Your task to perform on an android device: Is it going to rain today? Image 0: 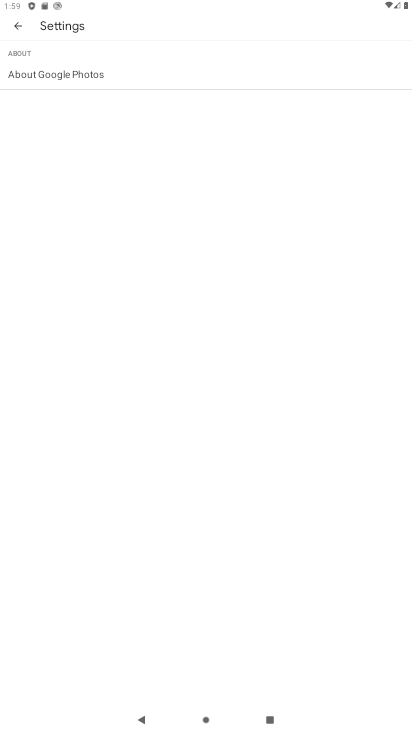
Step 0: press home button
Your task to perform on an android device: Is it going to rain today? Image 1: 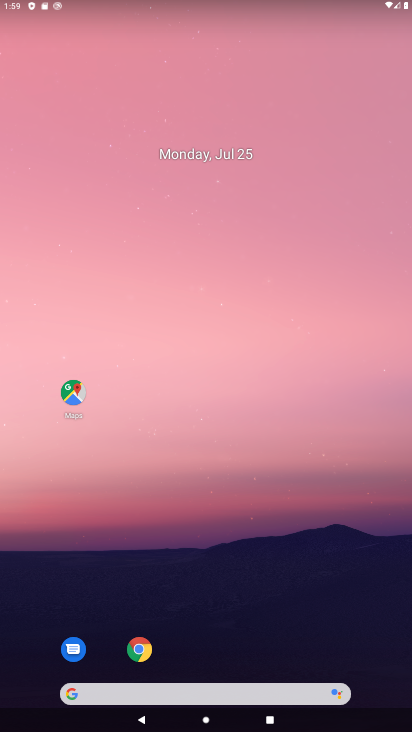
Step 1: drag from (6, 281) to (395, 290)
Your task to perform on an android device: Is it going to rain today? Image 2: 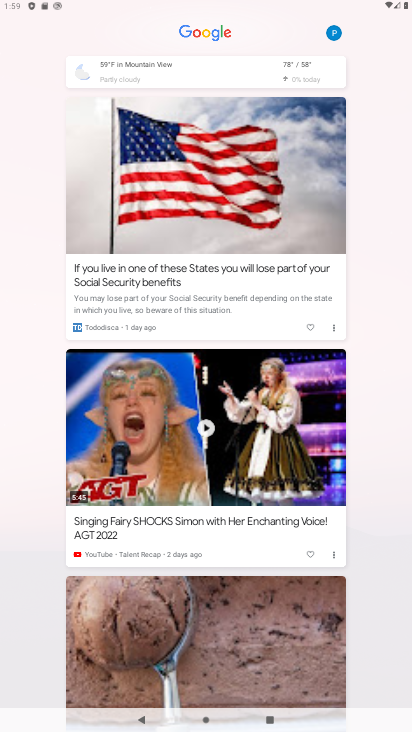
Step 2: click (293, 66)
Your task to perform on an android device: Is it going to rain today? Image 3: 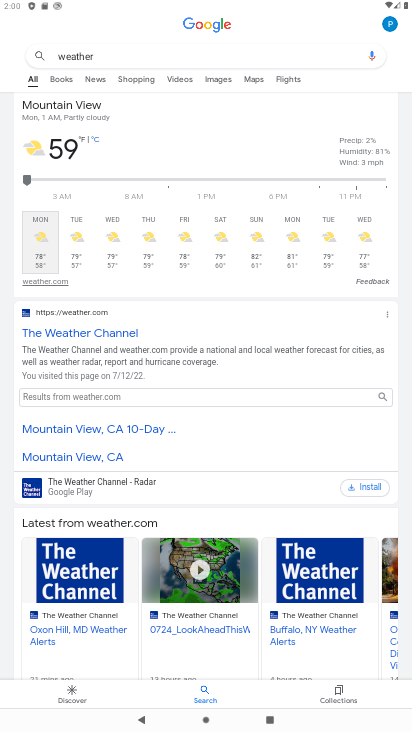
Step 3: task complete